Your task to perform on an android device: turn on data saver in the chrome app Image 0: 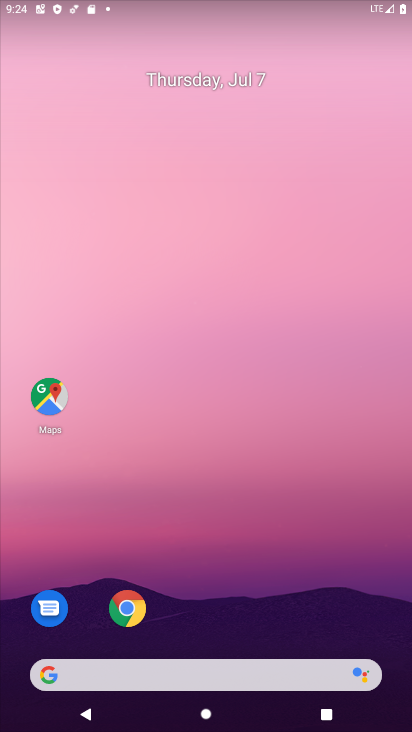
Step 0: click (133, 609)
Your task to perform on an android device: turn on data saver in the chrome app Image 1: 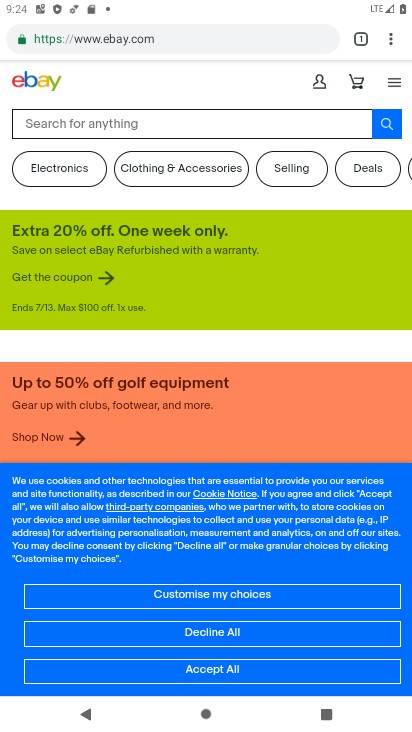
Step 1: click (382, 40)
Your task to perform on an android device: turn on data saver in the chrome app Image 2: 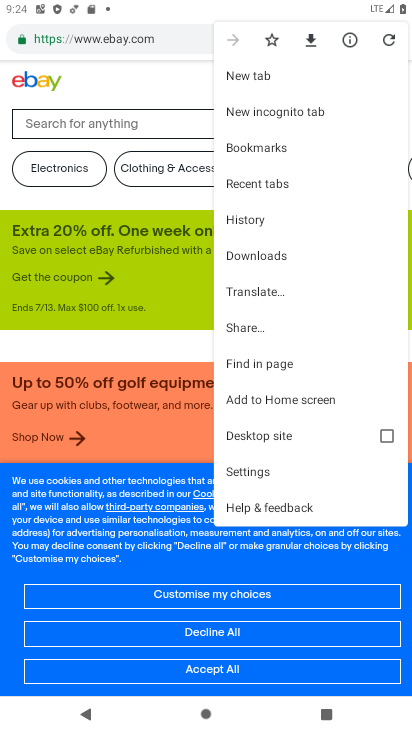
Step 2: click (247, 466)
Your task to perform on an android device: turn on data saver in the chrome app Image 3: 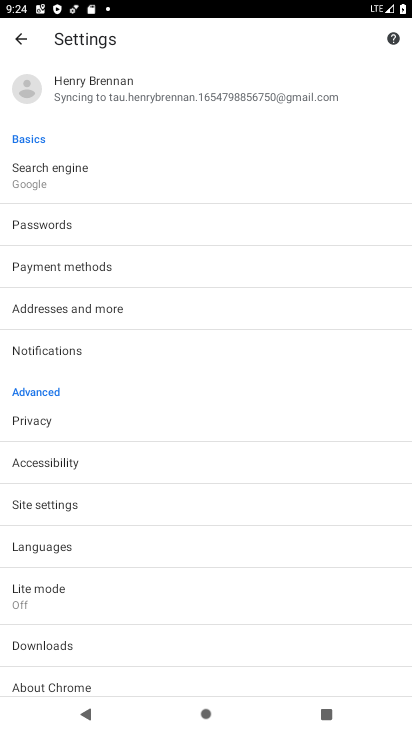
Step 3: click (55, 595)
Your task to perform on an android device: turn on data saver in the chrome app Image 4: 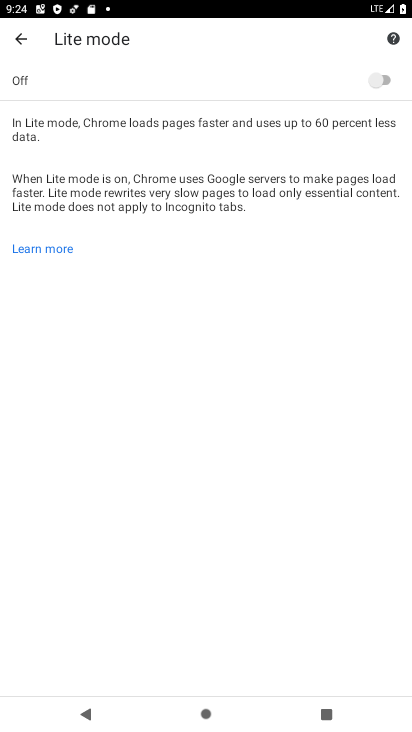
Step 4: click (388, 88)
Your task to perform on an android device: turn on data saver in the chrome app Image 5: 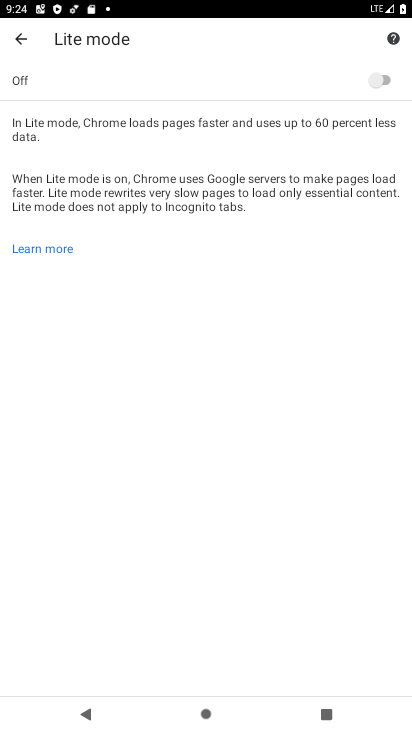
Step 5: click (388, 88)
Your task to perform on an android device: turn on data saver in the chrome app Image 6: 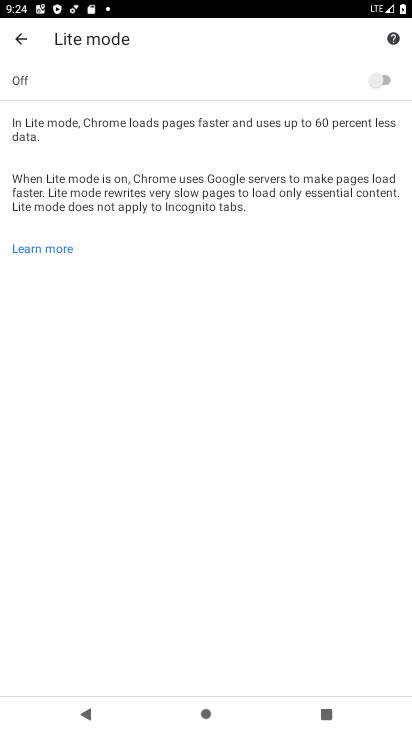
Step 6: click (388, 88)
Your task to perform on an android device: turn on data saver in the chrome app Image 7: 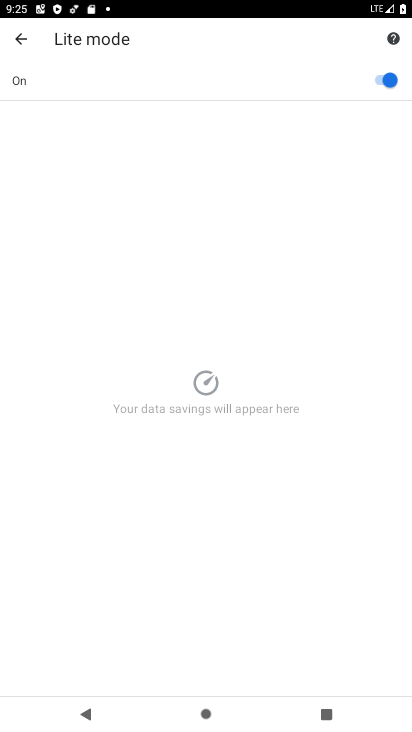
Step 7: task complete